Your task to perform on an android device: Open wifi settings Image 0: 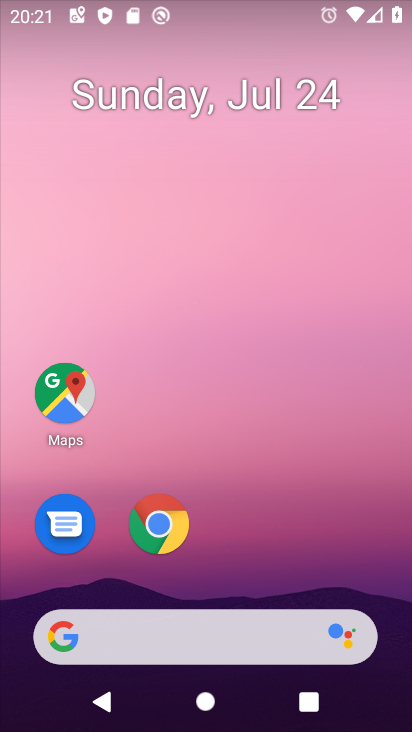
Step 0: drag from (276, 531) to (336, 1)
Your task to perform on an android device: Open wifi settings Image 1: 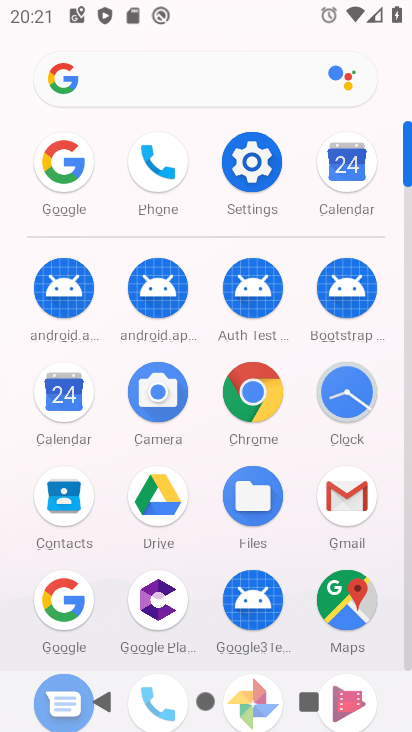
Step 1: click (258, 150)
Your task to perform on an android device: Open wifi settings Image 2: 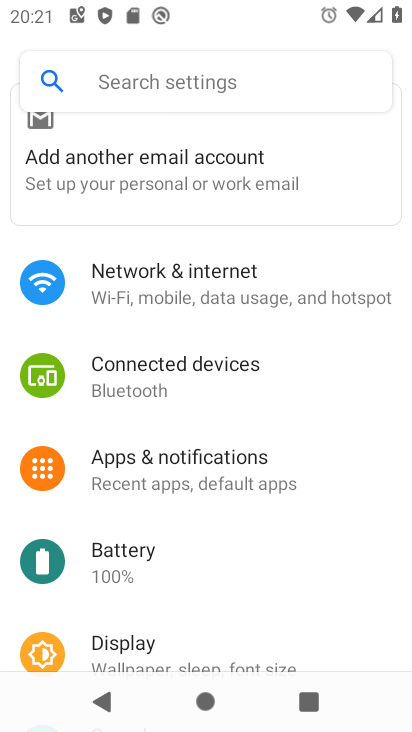
Step 2: click (188, 279)
Your task to perform on an android device: Open wifi settings Image 3: 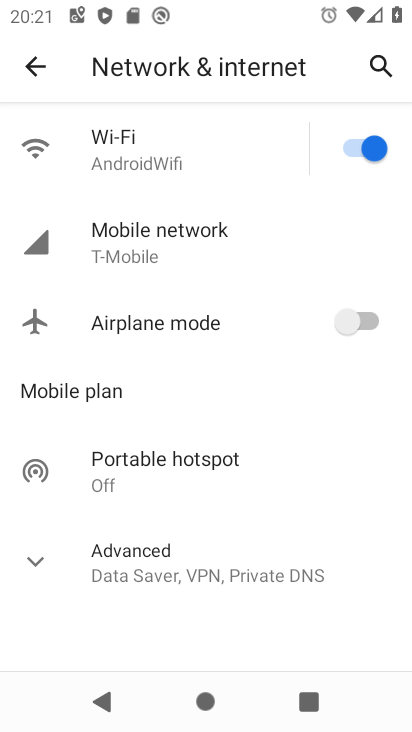
Step 3: click (108, 151)
Your task to perform on an android device: Open wifi settings Image 4: 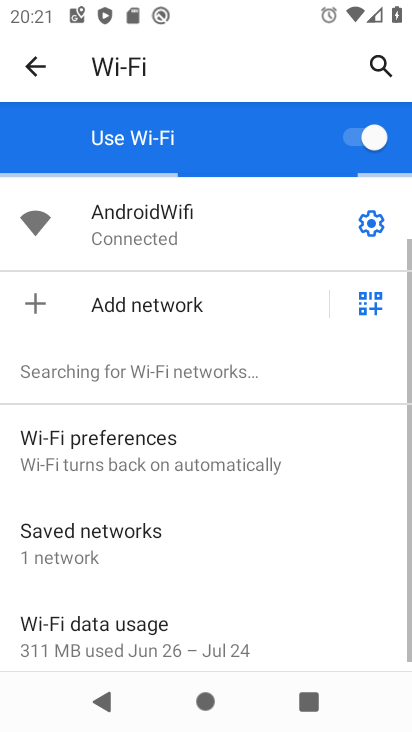
Step 4: task complete